Your task to perform on an android device: Do I have any events this weekend? Image 0: 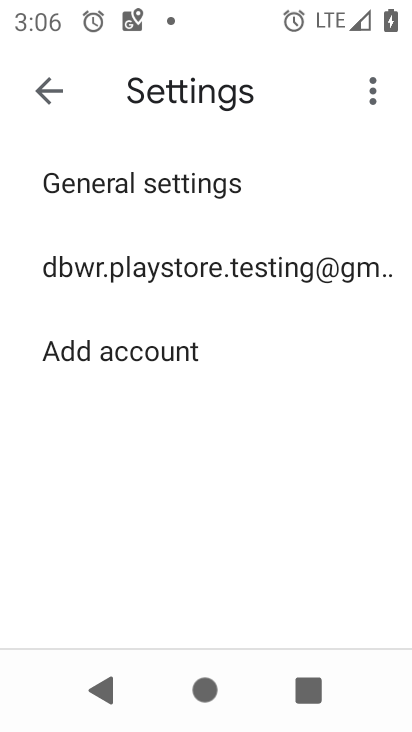
Step 0: press home button
Your task to perform on an android device: Do I have any events this weekend? Image 1: 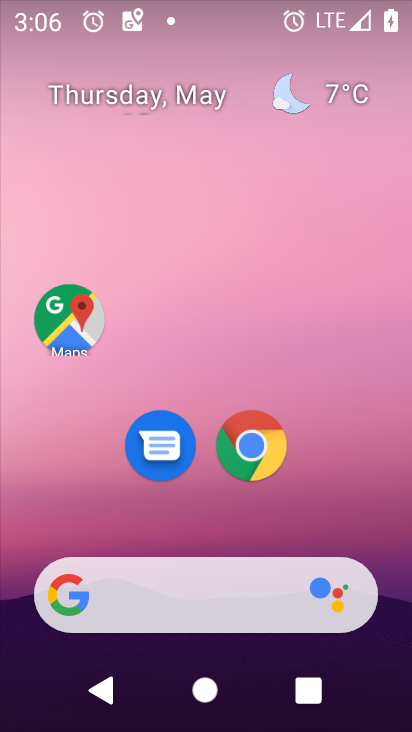
Step 1: drag from (376, 556) to (365, 16)
Your task to perform on an android device: Do I have any events this weekend? Image 2: 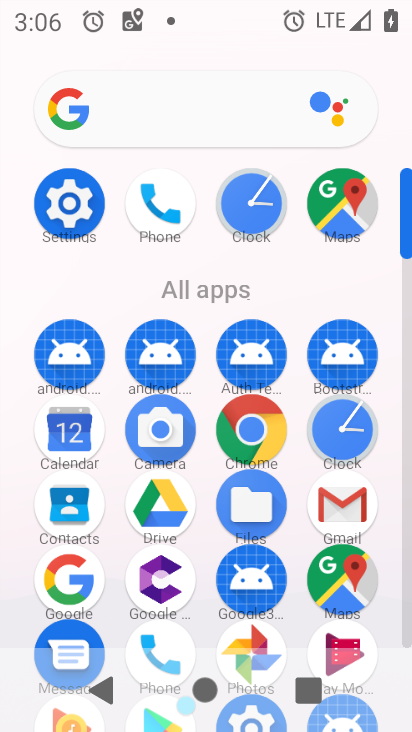
Step 2: click (76, 422)
Your task to perform on an android device: Do I have any events this weekend? Image 3: 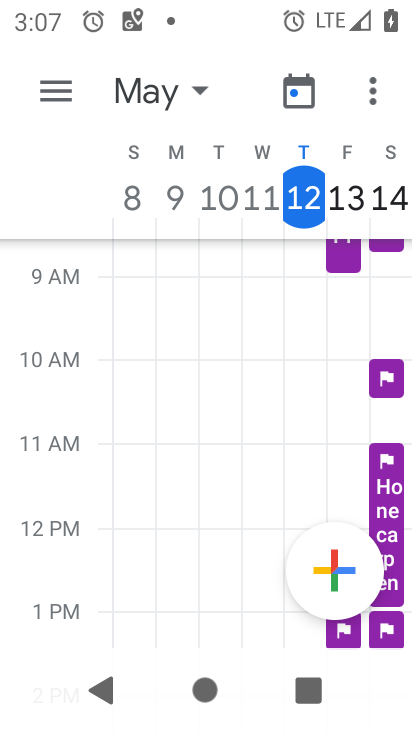
Step 3: click (392, 486)
Your task to perform on an android device: Do I have any events this weekend? Image 4: 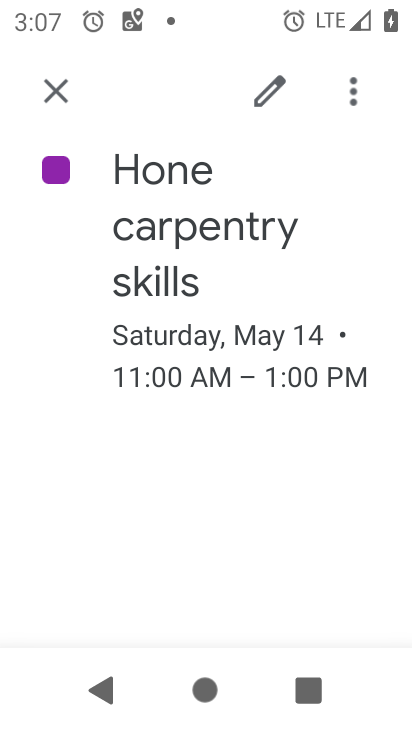
Step 4: task complete